Your task to perform on an android device: Open battery settings Image 0: 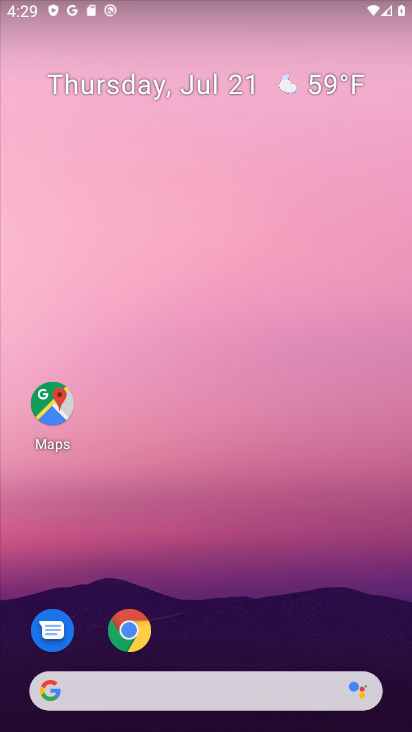
Step 0: drag from (198, 364) to (198, 171)
Your task to perform on an android device: Open battery settings Image 1: 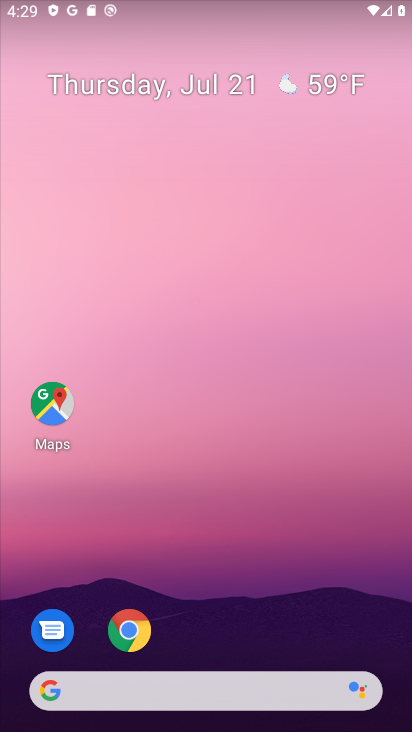
Step 1: drag from (216, 569) to (190, 202)
Your task to perform on an android device: Open battery settings Image 2: 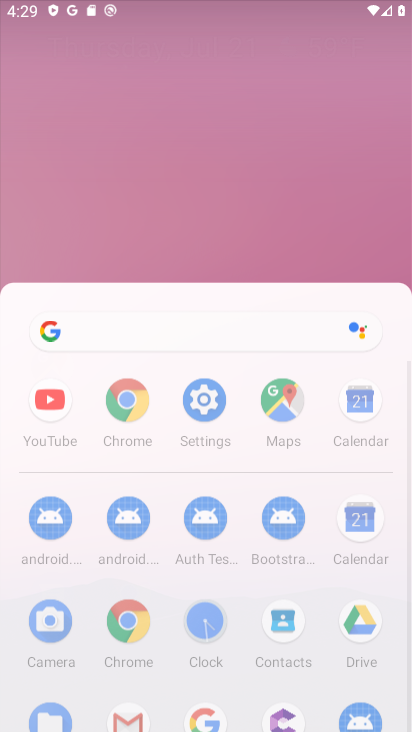
Step 2: click (270, 44)
Your task to perform on an android device: Open battery settings Image 3: 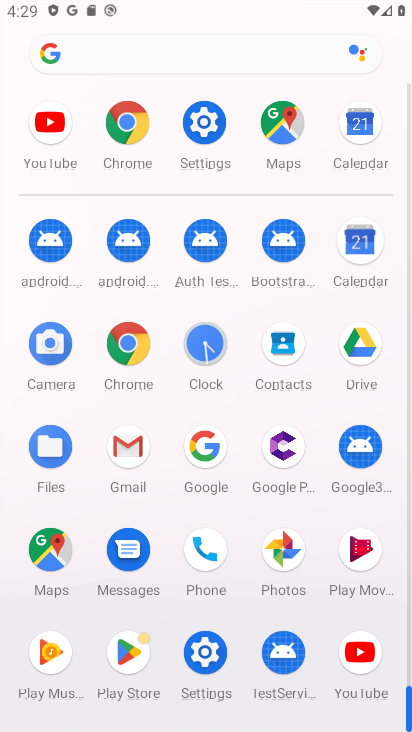
Step 3: drag from (211, 359) to (211, 153)
Your task to perform on an android device: Open battery settings Image 4: 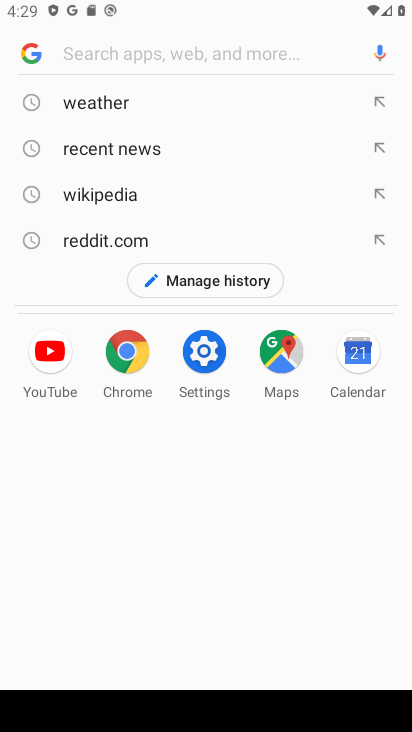
Step 4: press back button
Your task to perform on an android device: Open battery settings Image 5: 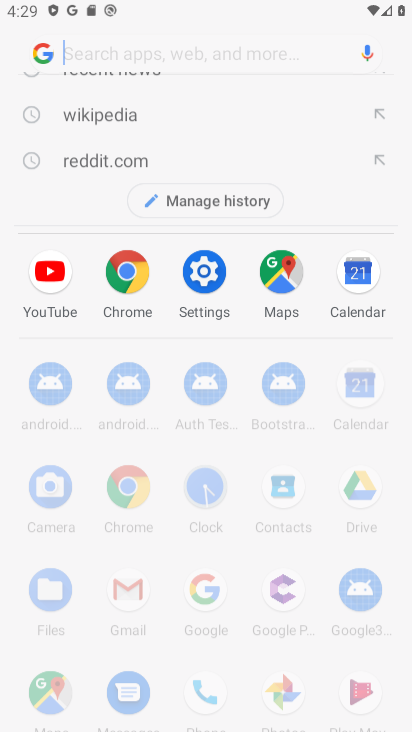
Step 5: press back button
Your task to perform on an android device: Open battery settings Image 6: 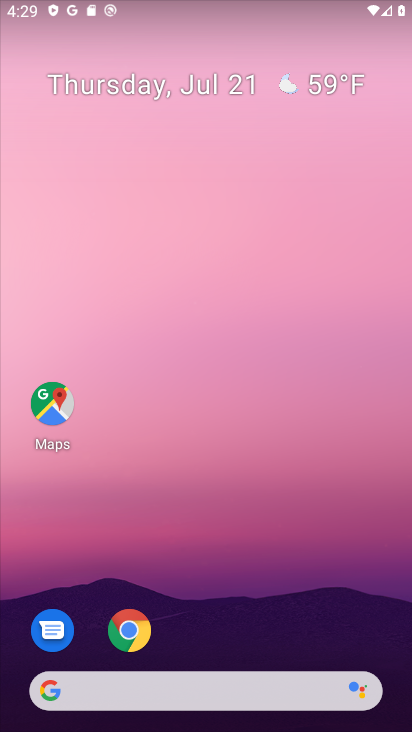
Step 6: click (219, 122)
Your task to perform on an android device: Open battery settings Image 7: 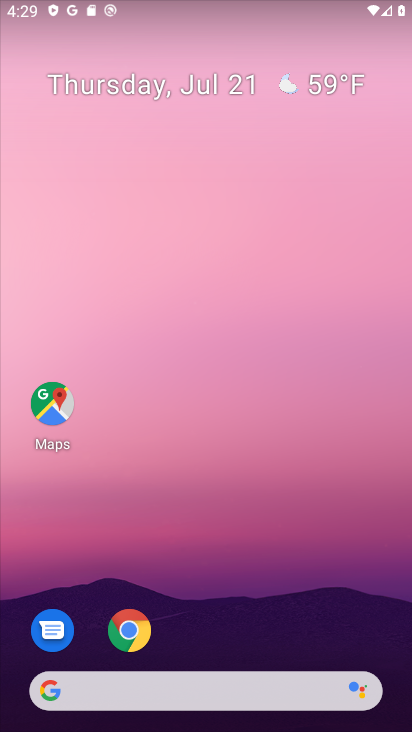
Step 7: drag from (214, 470) to (171, 106)
Your task to perform on an android device: Open battery settings Image 8: 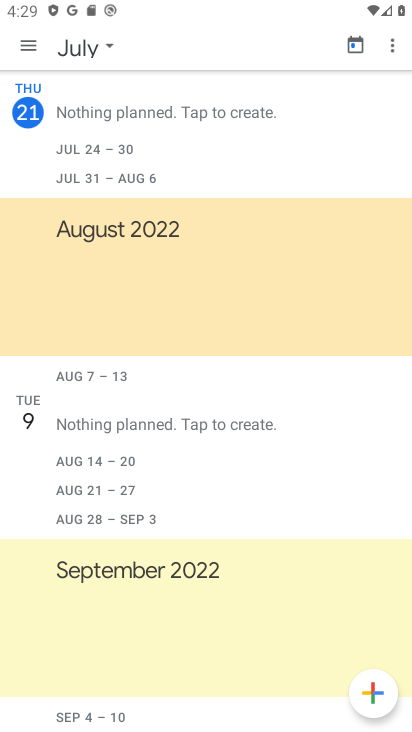
Step 8: press back button
Your task to perform on an android device: Open battery settings Image 9: 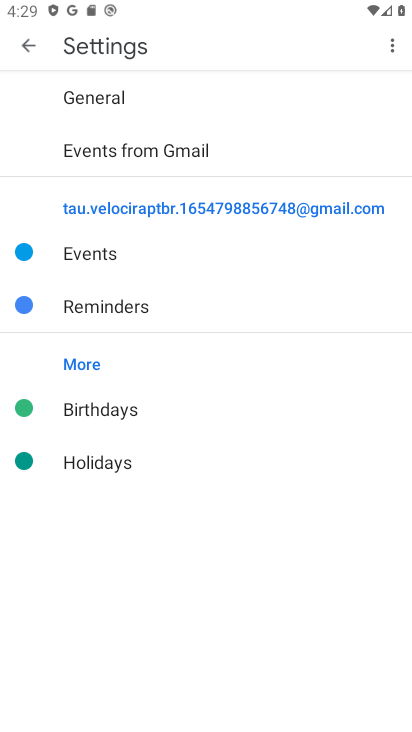
Step 9: click (31, 42)
Your task to perform on an android device: Open battery settings Image 10: 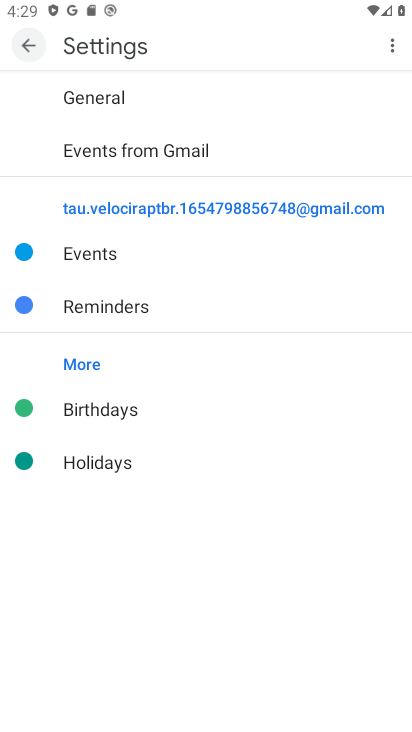
Step 10: click (30, 41)
Your task to perform on an android device: Open battery settings Image 11: 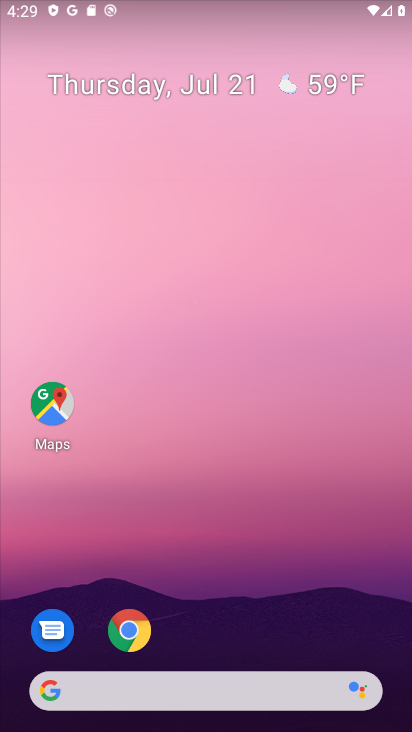
Step 11: drag from (232, 438) to (200, 126)
Your task to perform on an android device: Open battery settings Image 12: 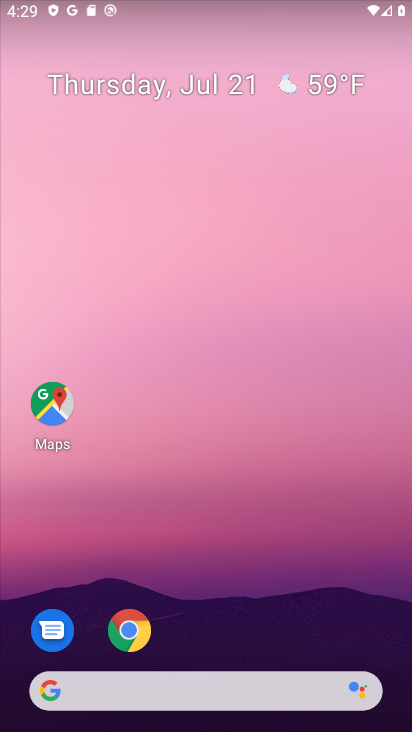
Step 12: drag from (222, 561) to (178, 105)
Your task to perform on an android device: Open battery settings Image 13: 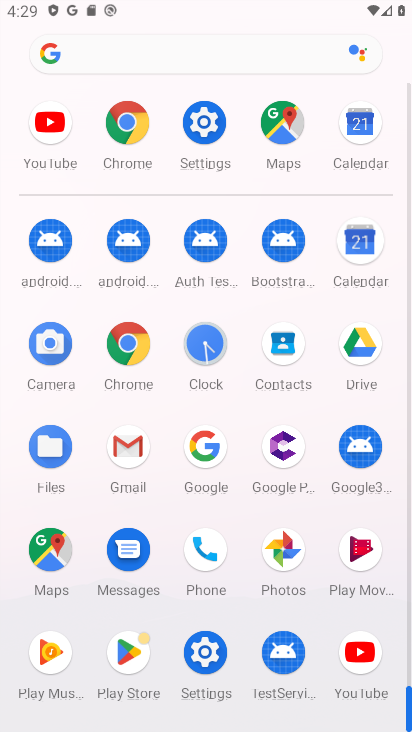
Step 13: click (207, 112)
Your task to perform on an android device: Open battery settings Image 14: 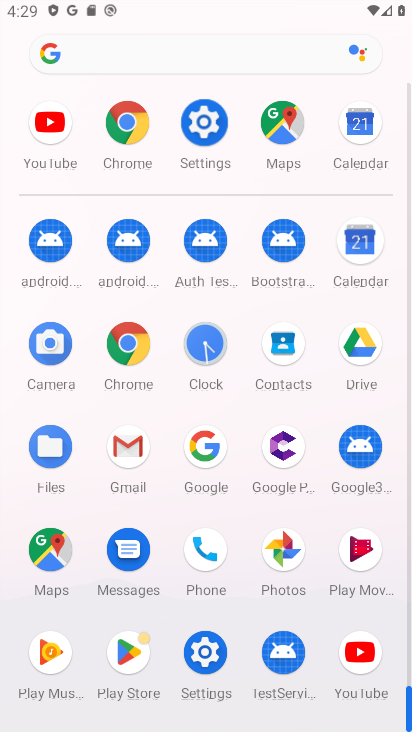
Step 14: click (221, 140)
Your task to perform on an android device: Open battery settings Image 15: 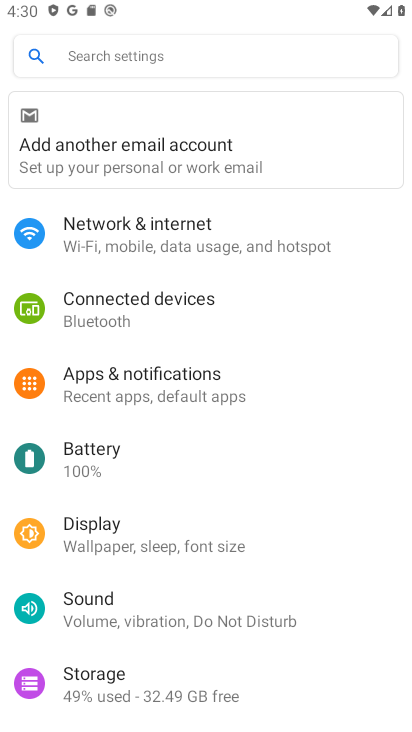
Step 15: click (83, 477)
Your task to perform on an android device: Open battery settings Image 16: 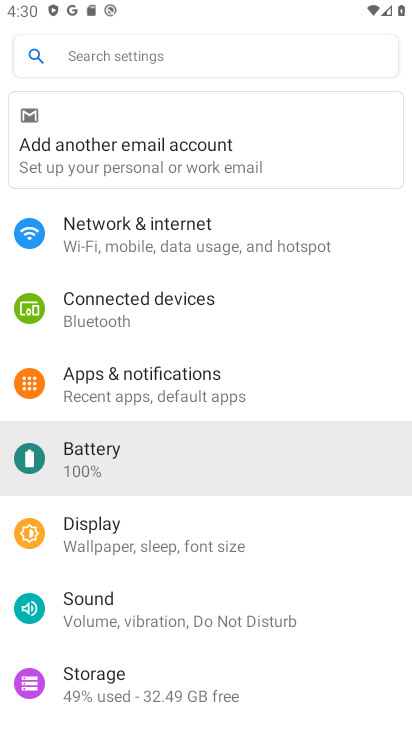
Step 16: click (83, 477)
Your task to perform on an android device: Open battery settings Image 17: 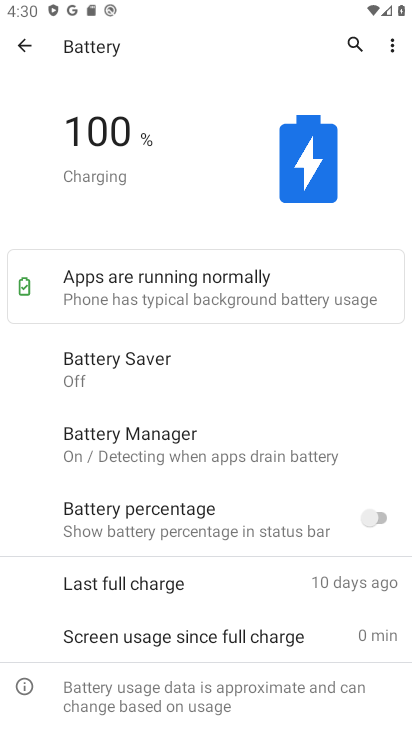
Step 17: task complete